Your task to perform on an android device: see creations saved in the google photos Image 0: 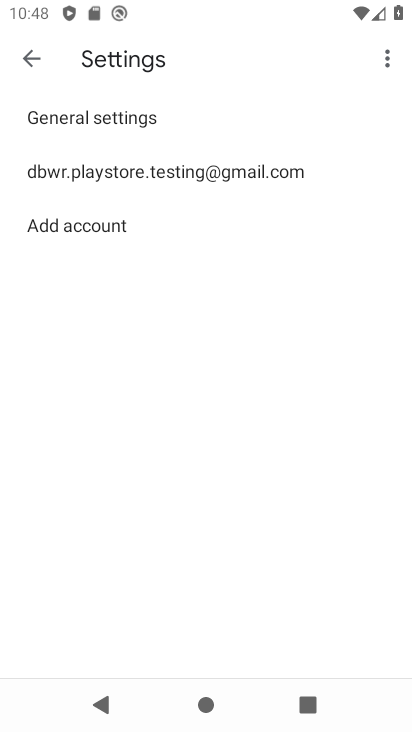
Step 0: press home button
Your task to perform on an android device: see creations saved in the google photos Image 1: 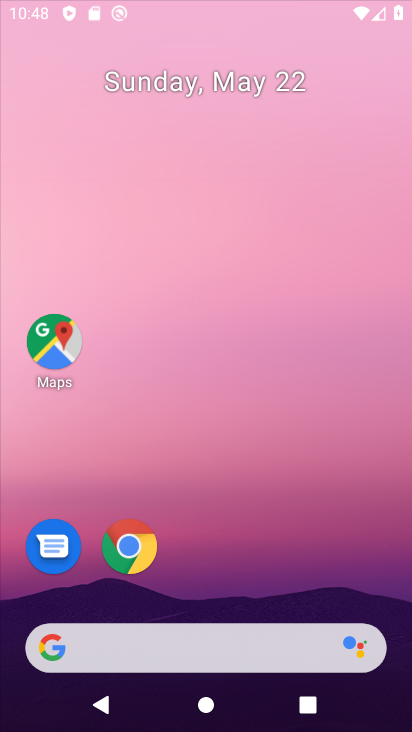
Step 1: drag from (212, 518) to (252, 21)
Your task to perform on an android device: see creations saved in the google photos Image 2: 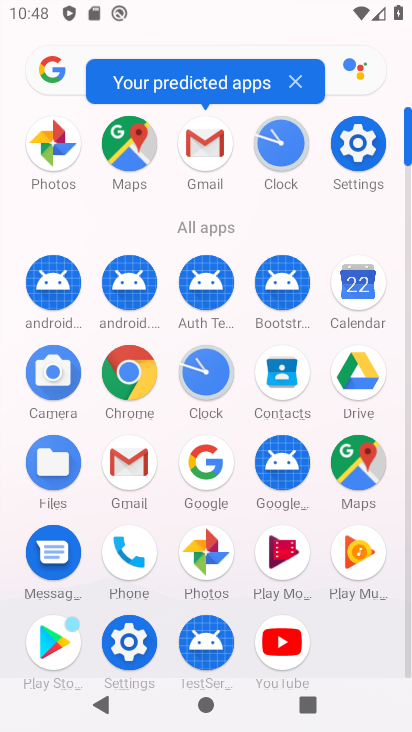
Step 2: click (34, 142)
Your task to perform on an android device: see creations saved in the google photos Image 3: 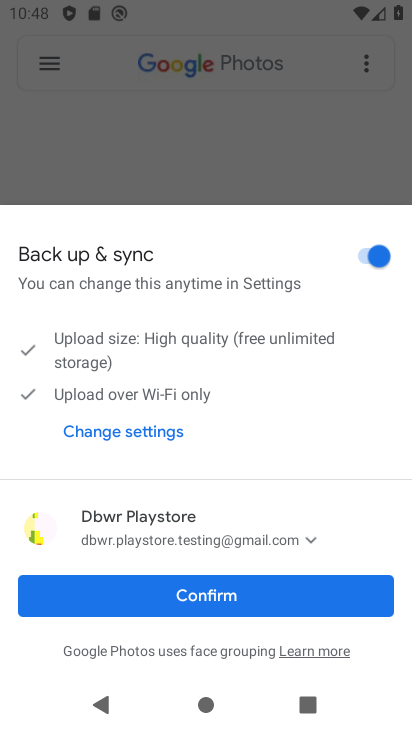
Step 3: click (156, 596)
Your task to perform on an android device: see creations saved in the google photos Image 4: 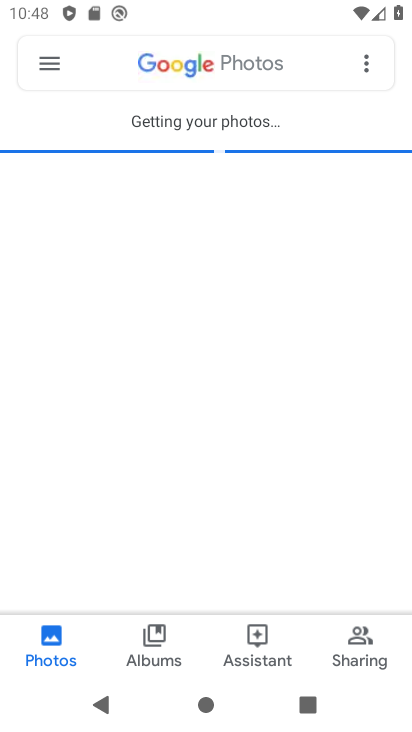
Step 4: click (181, 43)
Your task to perform on an android device: see creations saved in the google photos Image 5: 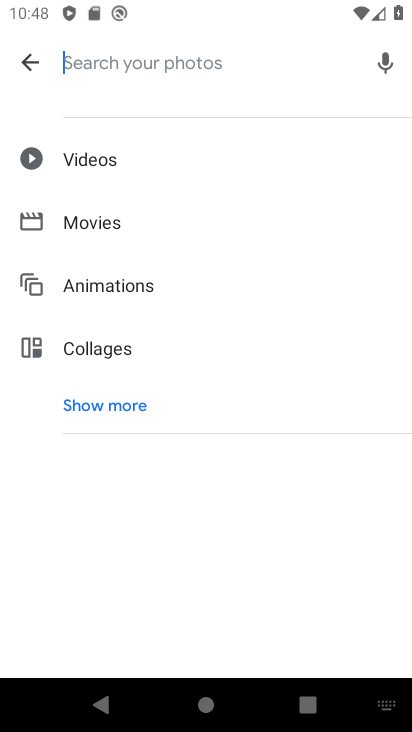
Step 5: click (123, 403)
Your task to perform on an android device: see creations saved in the google photos Image 6: 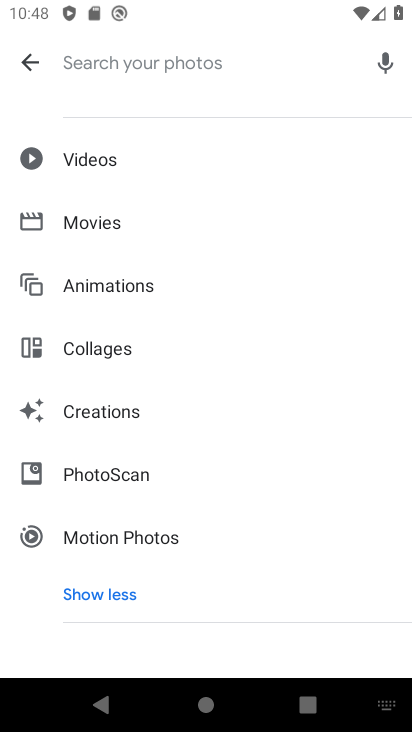
Step 6: click (119, 418)
Your task to perform on an android device: see creations saved in the google photos Image 7: 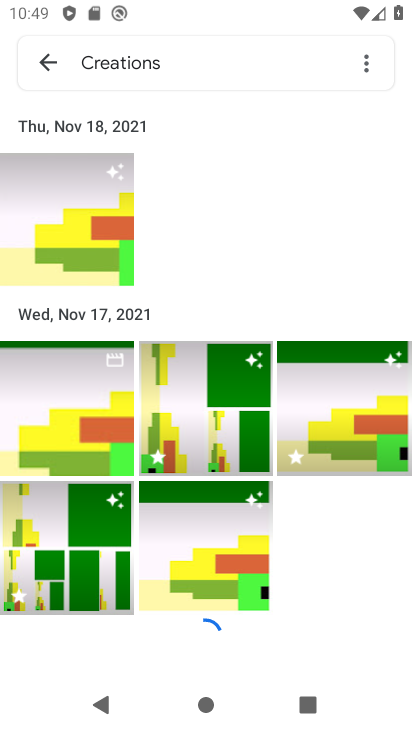
Step 7: task complete